Your task to perform on an android device: toggle wifi Image 0: 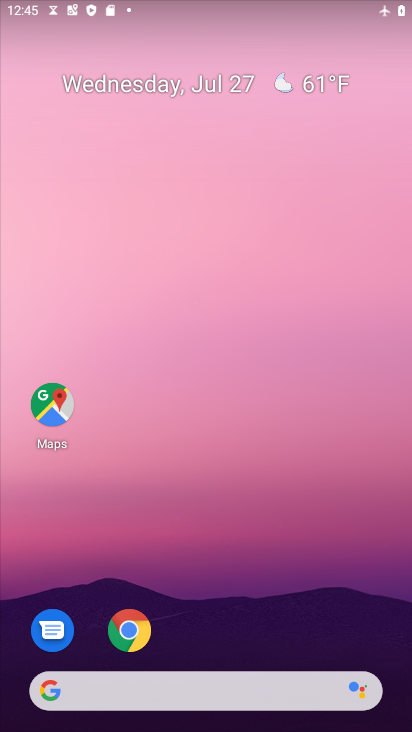
Step 0: drag from (195, 676) to (270, 335)
Your task to perform on an android device: toggle wifi Image 1: 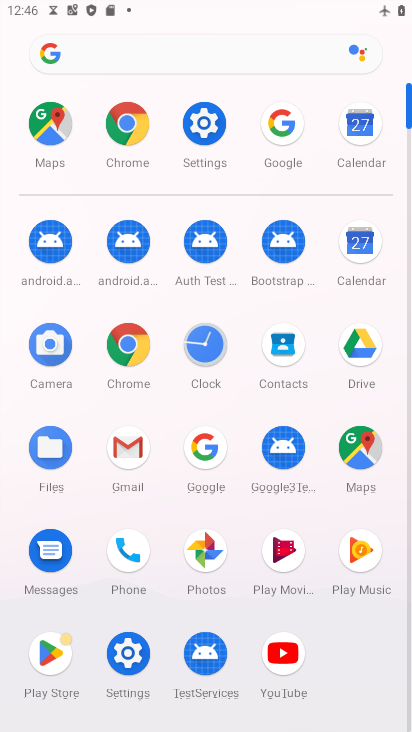
Step 1: drag from (152, 639) to (272, 247)
Your task to perform on an android device: toggle wifi Image 2: 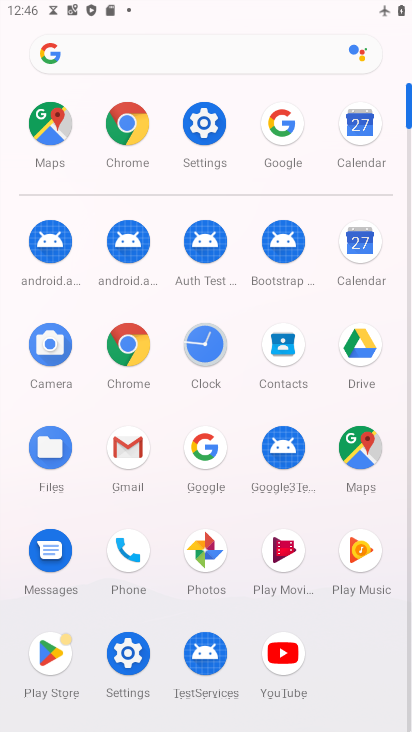
Step 2: click (209, 113)
Your task to perform on an android device: toggle wifi Image 3: 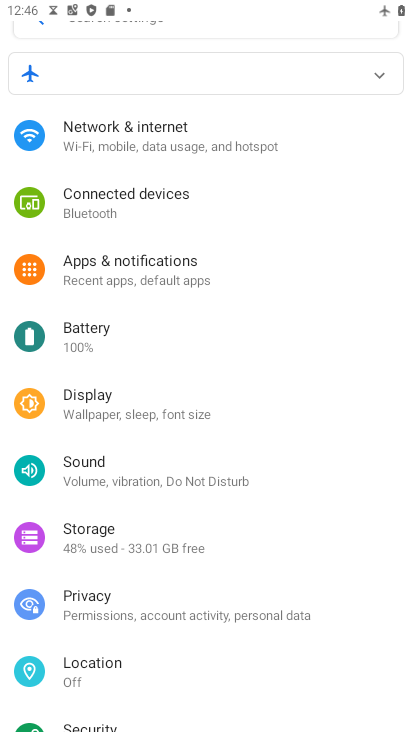
Step 3: click (209, 124)
Your task to perform on an android device: toggle wifi Image 4: 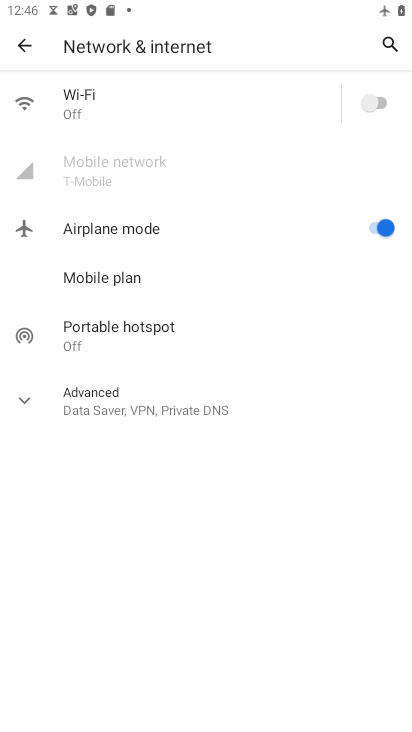
Step 4: click (373, 223)
Your task to perform on an android device: toggle wifi Image 5: 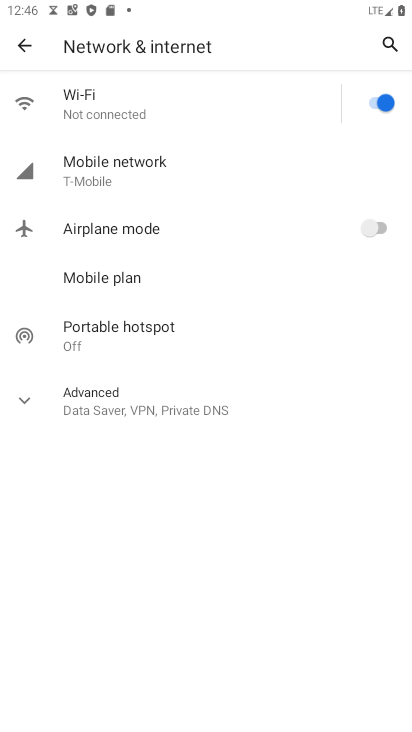
Step 5: click (382, 97)
Your task to perform on an android device: toggle wifi Image 6: 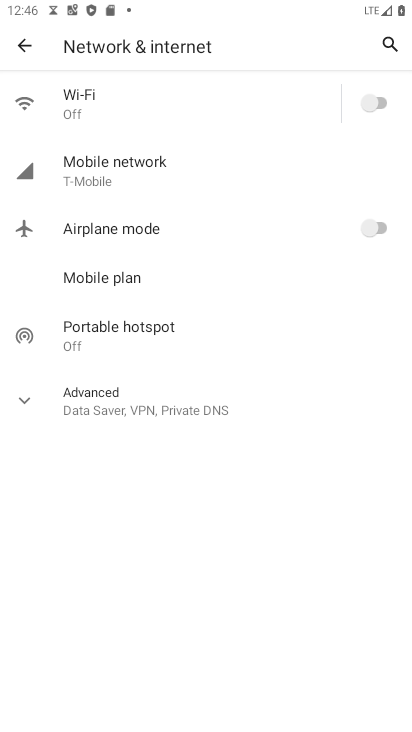
Step 6: click (377, 102)
Your task to perform on an android device: toggle wifi Image 7: 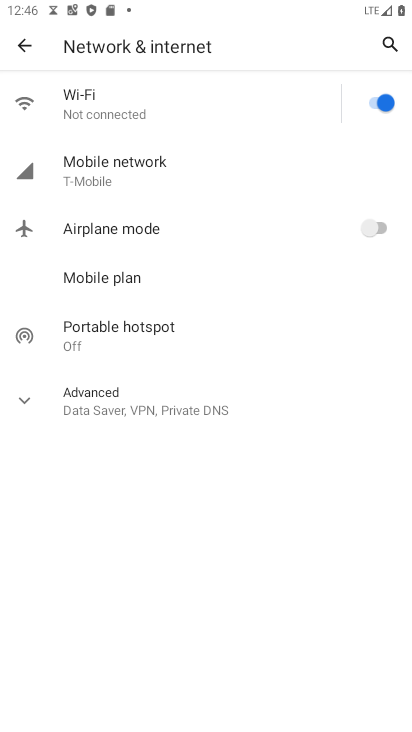
Step 7: task complete